Your task to perform on an android device: delete the emails in spam in the gmail app Image 0: 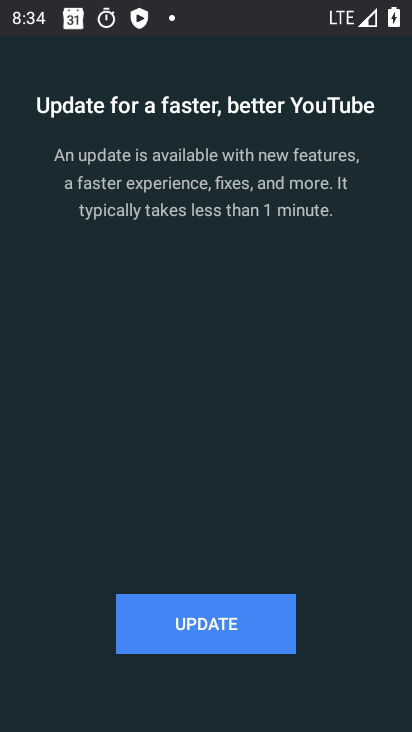
Step 0: press home button
Your task to perform on an android device: delete the emails in spam in the gmail app Image 1: 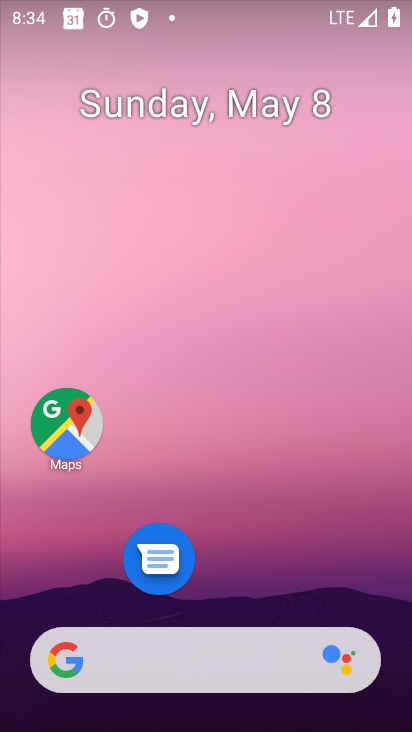
Step 1: drag from (282, 610) to (313, 75)
Your task to perform on an android device: delete the emails in spam in the gmail app Image 2: 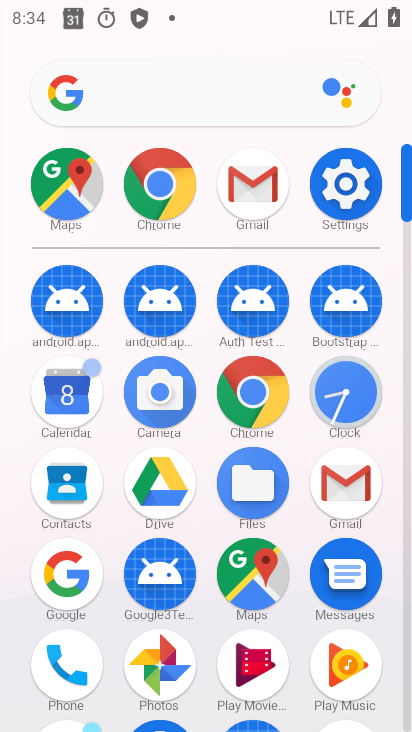
Step 2: click (353, 492)
Your task to perform on an android device: delete the emails in spam in the gmail app Image 3: 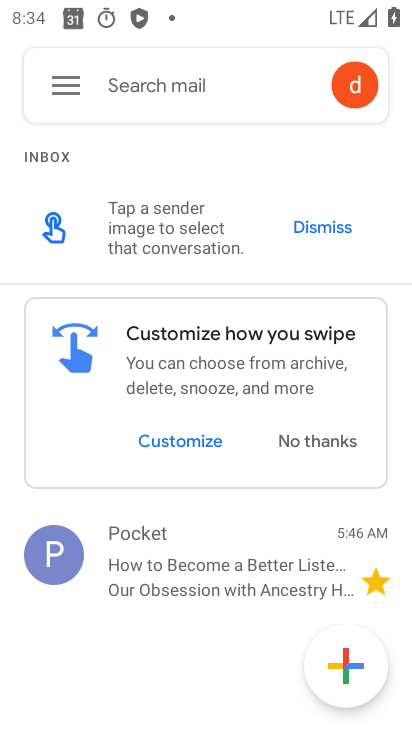
Step 3: click (72, 81)
Your task to perform on an android device: delete the emails in spam in the gmail app Image 4: 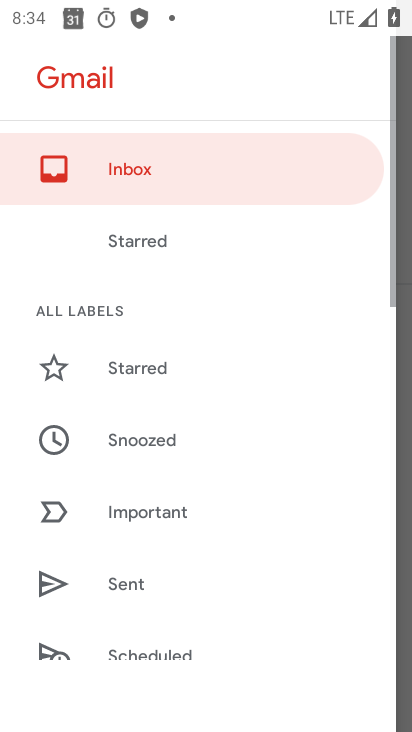
Step 4: drag from (198, 599) to (257, 120)
Your task to perform on an android device: delete the emails in spam in the gmail app Image 5: 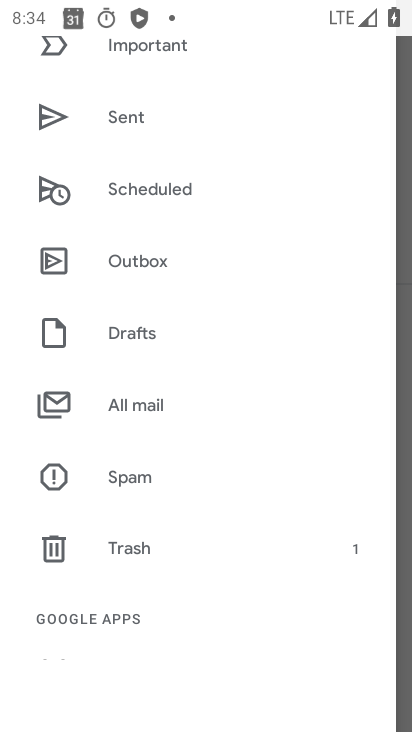
Step 5: click (148, 481)
Your task to perform on an android device: delete the emails in spam in the gmail app Image 6: 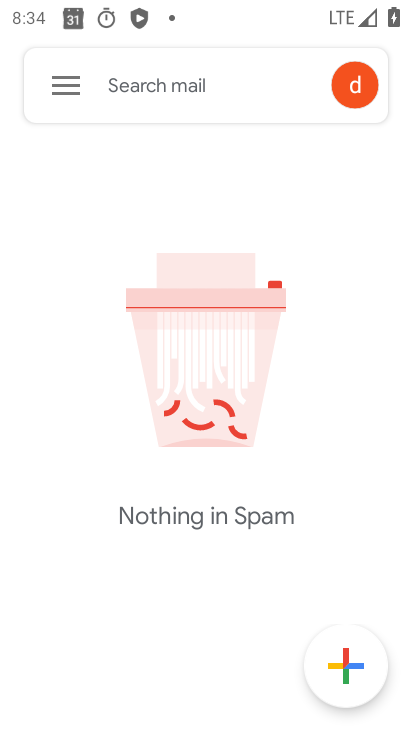
Step 6: task complete